Your task to perform on an android device: Open ESPN.com Image 0: 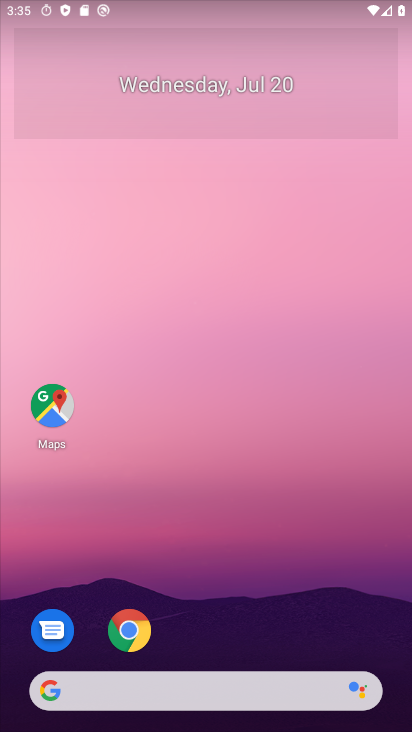
Step 0: press home button
Your task to perform on an android device: Open ESPN.com Image 1: 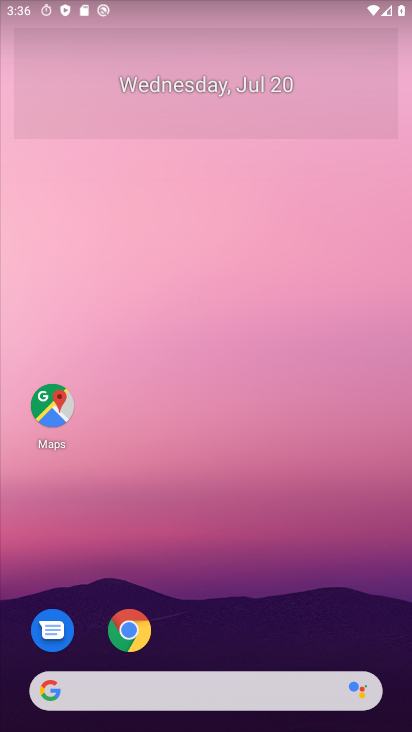
Step 1: click (52, 692)
Your task to perform on an android device: Open ESPN.com Image 2: 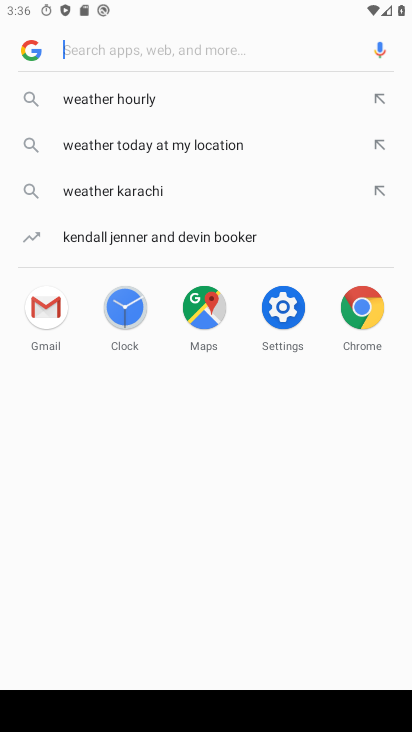
Step 2: type "ESPN.com"
Your task to perform on an android device: Open ESPN.com Image 3: 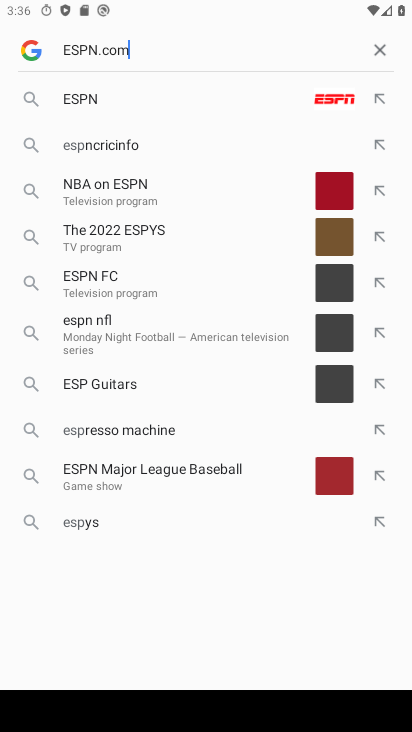
Step 3: press enter
Your task to perform on an android device: Open ESPN.com Image 4: 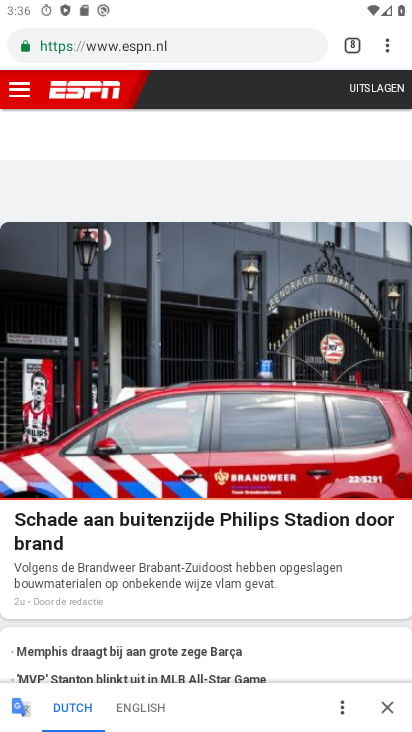
Step 4: task complete